Your task to perform on an android device: Go to Amazon Image 0: 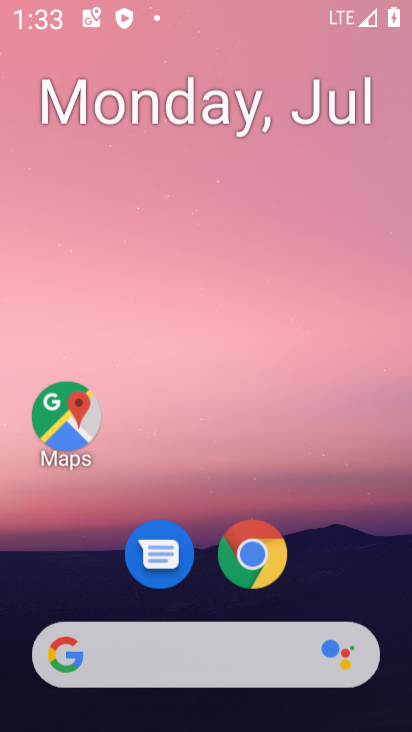
Step 0: drag from (405, 532) to (349, 48)
Your task to perform on an android device: Go to Amazon Image 1: 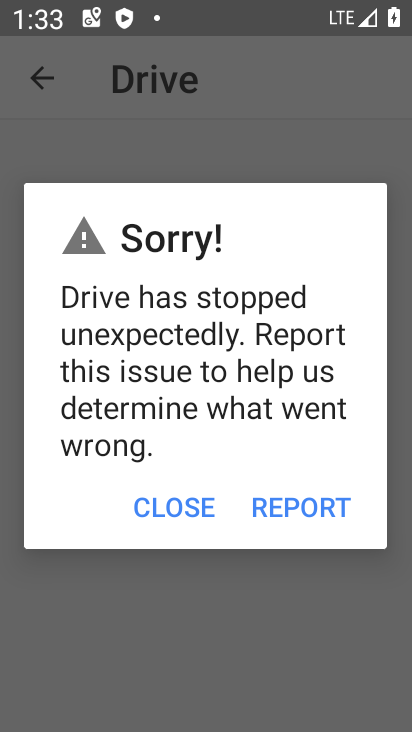
Step 1: press home button
Your task to perform on an android device: Go to Amazon Image 2: 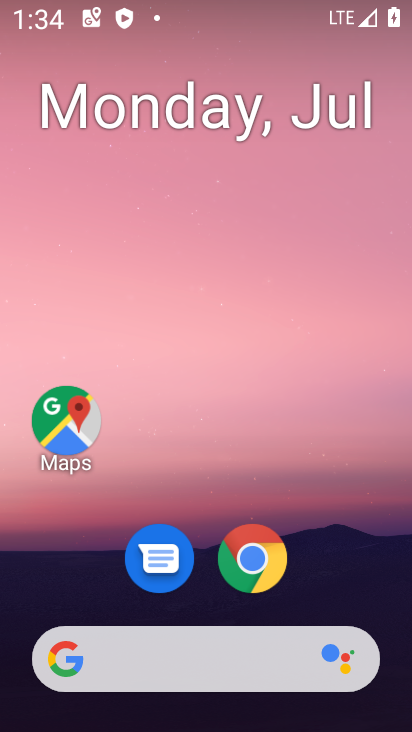
Step 2: drag from (355, 569) to (363, 61)
Your task to perform on an android device: Go to Amazon Image 3: 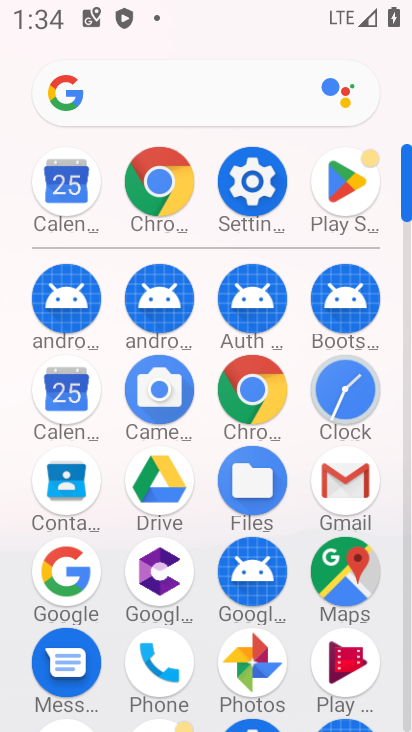
Step 3: click (261, 388)
Your task to perform on an android device: Go to Amazon Image 4: 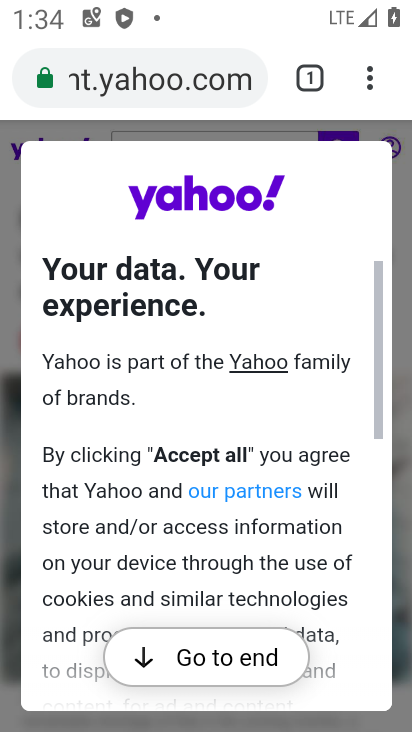
Step 4: click (214, 89)
Your task to perform on an android device: Go to Amazon Image 5: 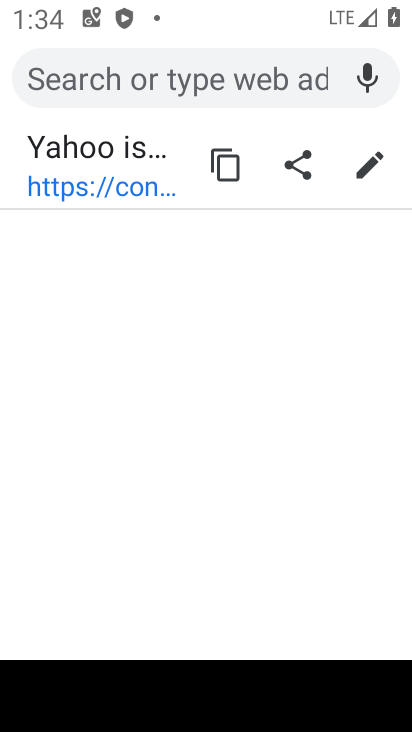
Step 5: type "amazon"
Your task to perform on an android device: Go to Amazon Image 6: 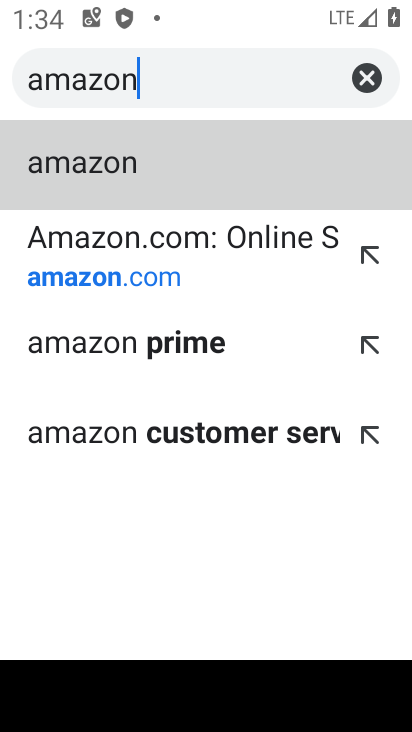
Step 6: click (335, 160)
Your task to perform on an android device: Go to Amazon Image 7: 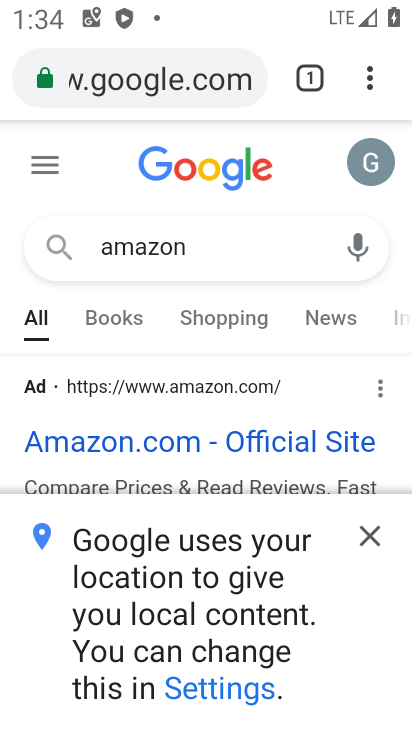
Step 7: task complete